Your task to perform on an android device: Search for vegetarian restaurants on Maps Image 0: 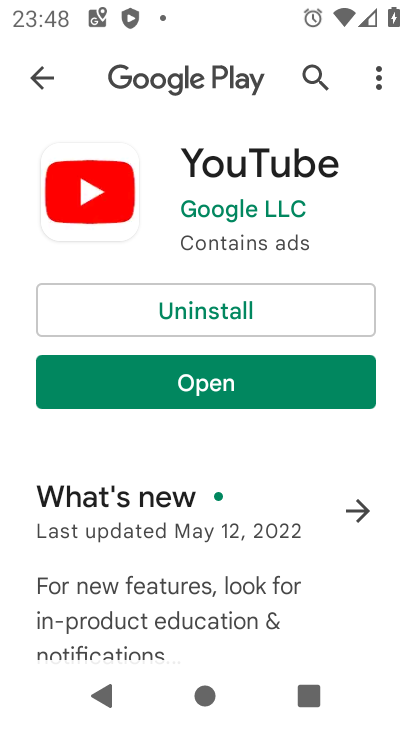
Step 0: press home button
Your task to perform on an android device: Search for vegetarian restaurants on Maps Image 1: 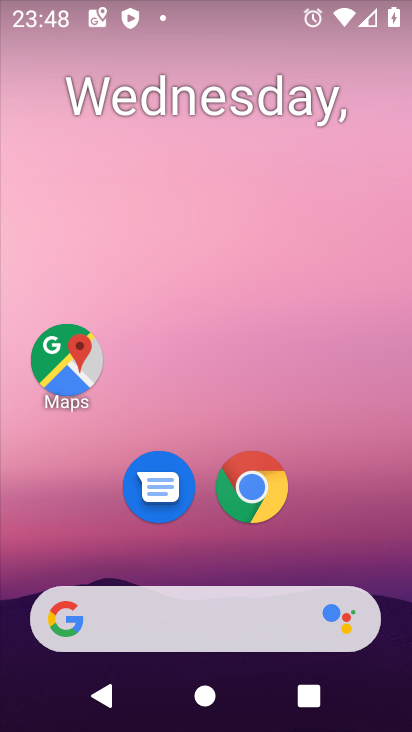
Step 1: click (56, 368)
Your task to perform on an android device: Search for vegetarian restaurants on Maps Image 2: 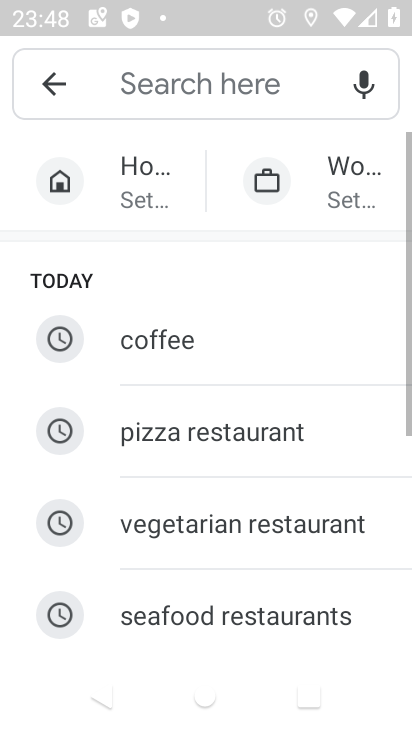
Step 2: click (120, 84)
Your task to perform on an android device: Search for vegetarian restaurants on Maps Image 3: 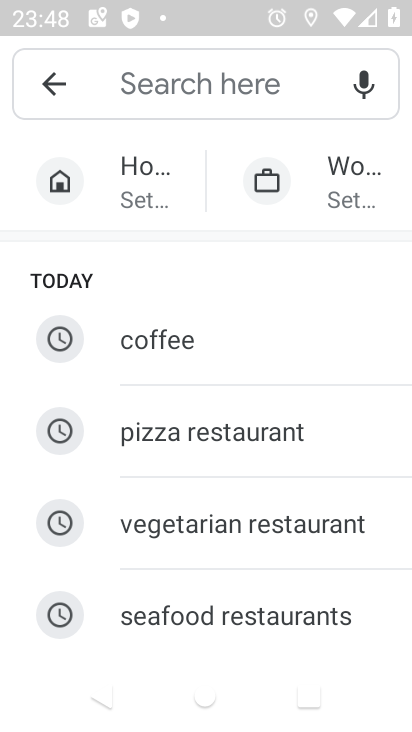
Step 3: type "vegetarian restaurant "
Your task to perform on an android device: Search for vegetarian restaurants on Maps Image 4: 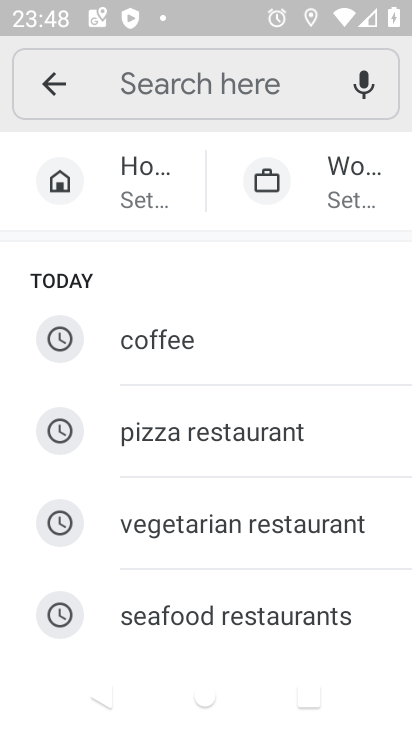
Step 4: click (213, 524)
Your task to perform on an android device: Search for vegetarian restaurants on Maps Image 5: 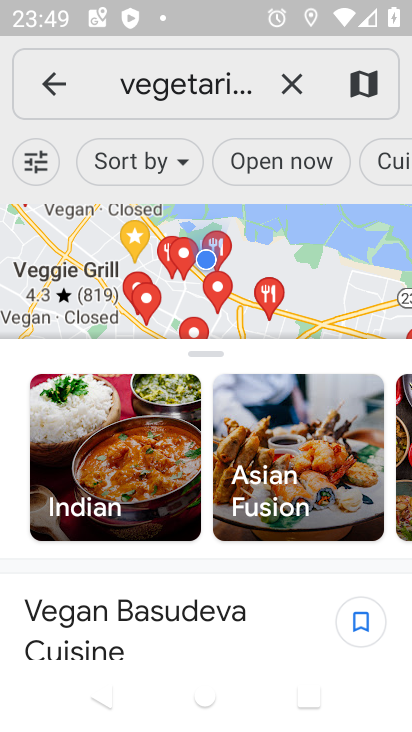
Step 5: task complete